Your task to perform on an android device: Open Reddit.com Image 0: 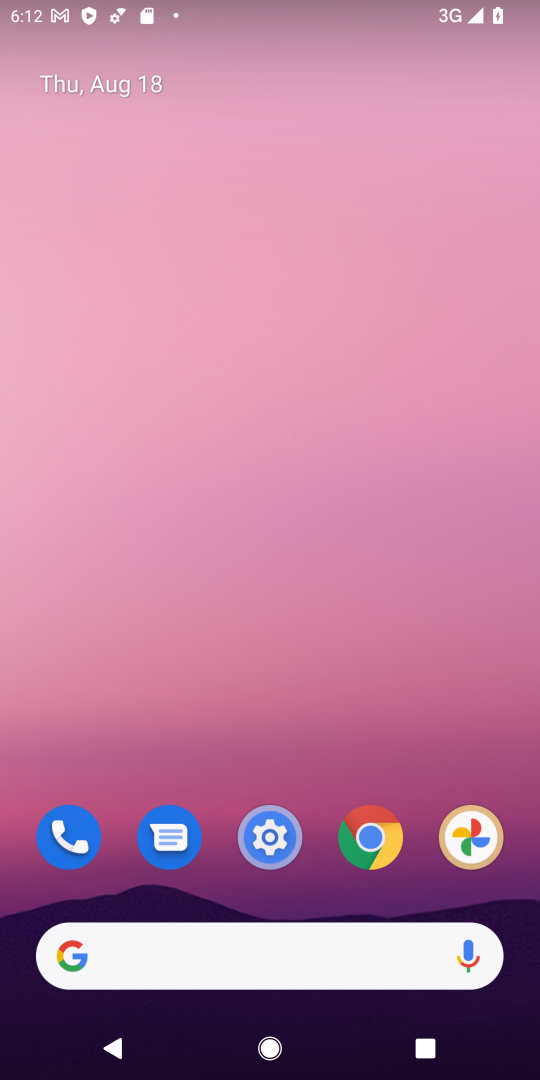
Step 0: press home button
Your task to perform on an android device: Open Reddit.com Image 1: 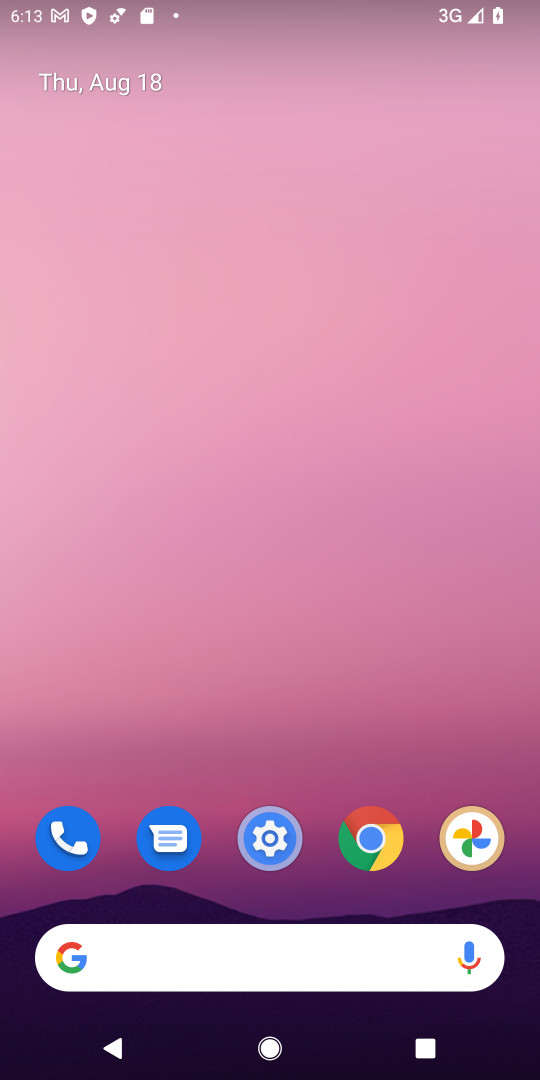
Step 1: click (64, 967)
Your task to perform on an android device: Open Reddit.com Image 2: 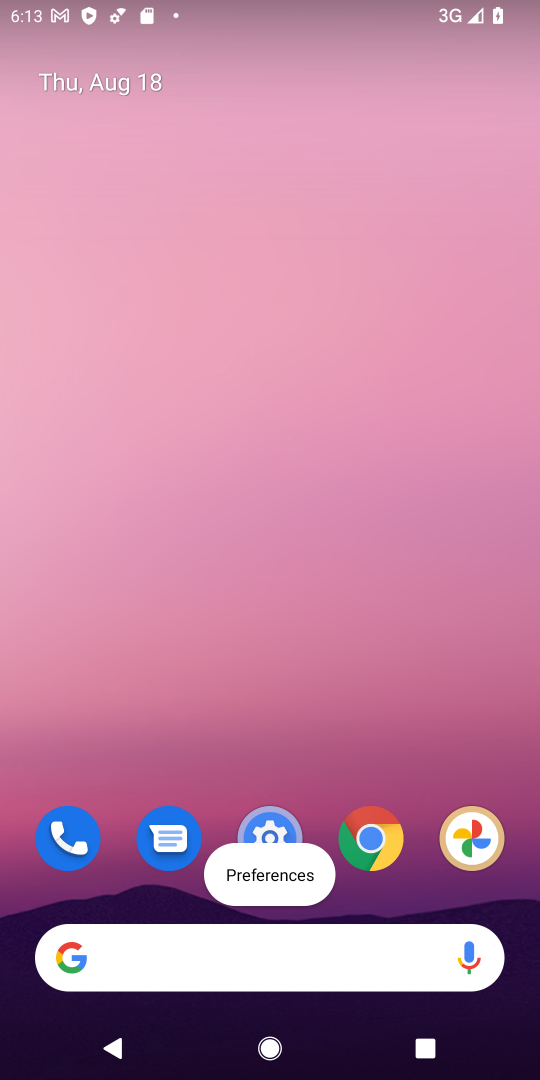
Step 2: click (64, 967)
Your task to perform on an android device: Open Reddit.com Image 3: 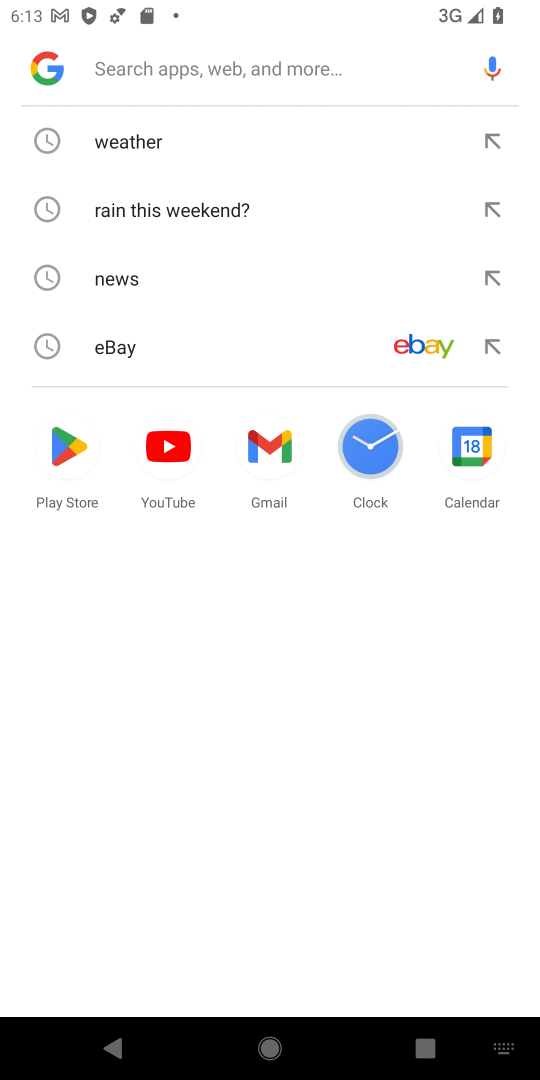
Step 3: type " Reddit.com"
Your task to perform on an android device: Open Reddit.com Image 4: 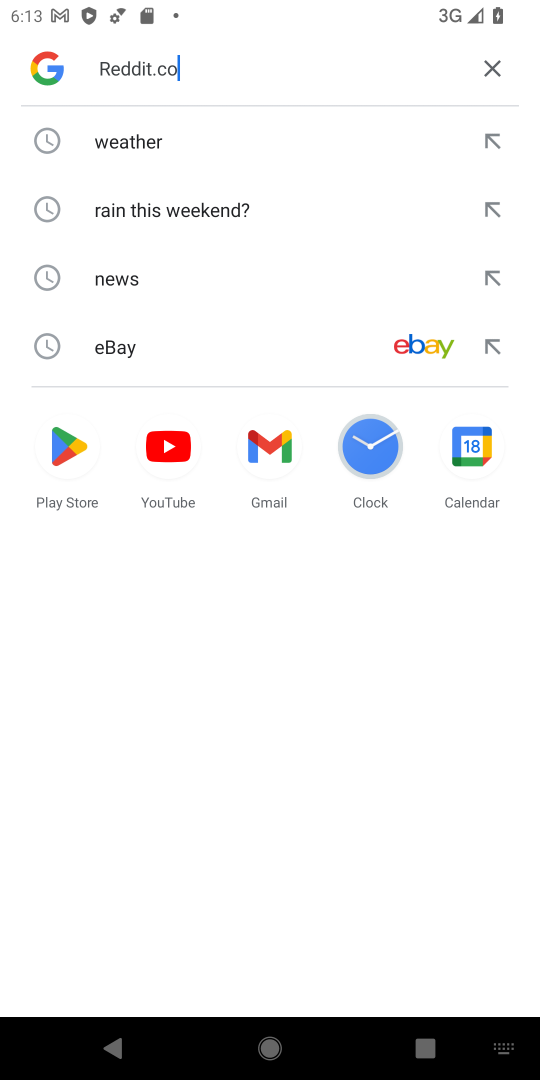
Step 4: press enter
Your task to perform on an android device: Open Reddit.com Image 5: 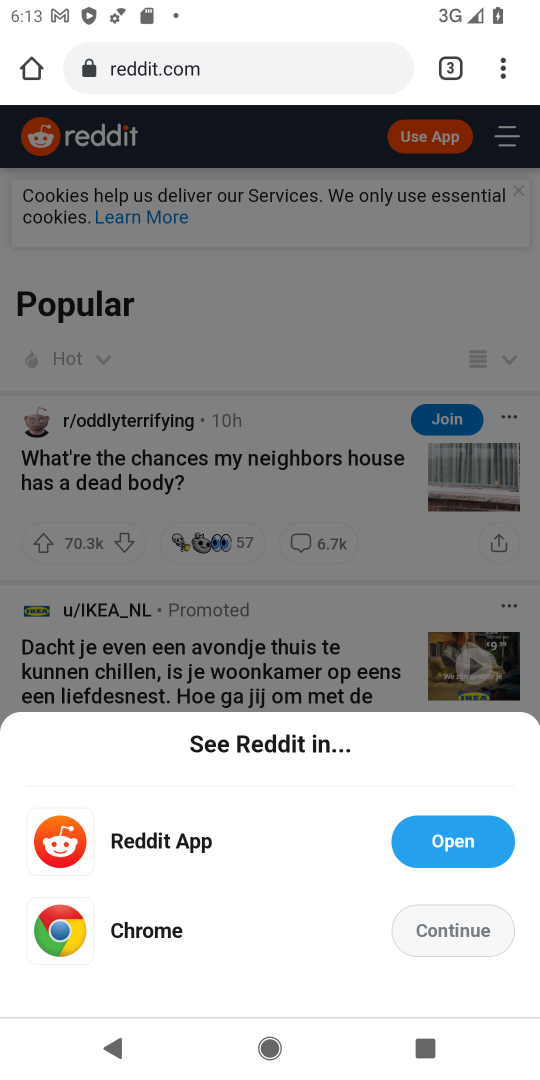
Step 5: task complete